Your task to perform on an android device: open chrome and create a bookmark for the current page Image 0: 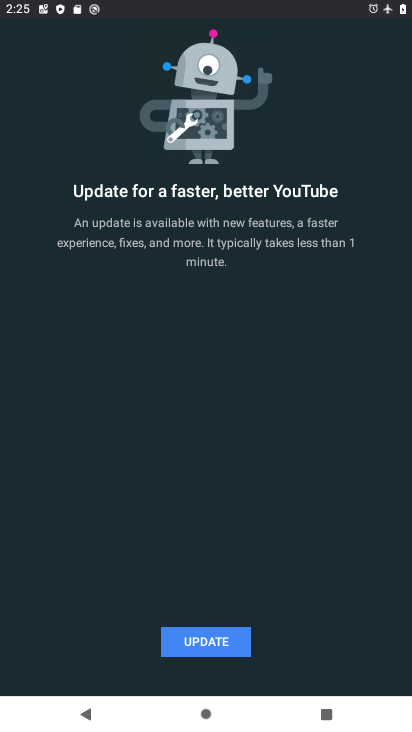
Step 0: press home button
Your task to perform on an android device: open chrome and create a bookmark for the current page Image 1: 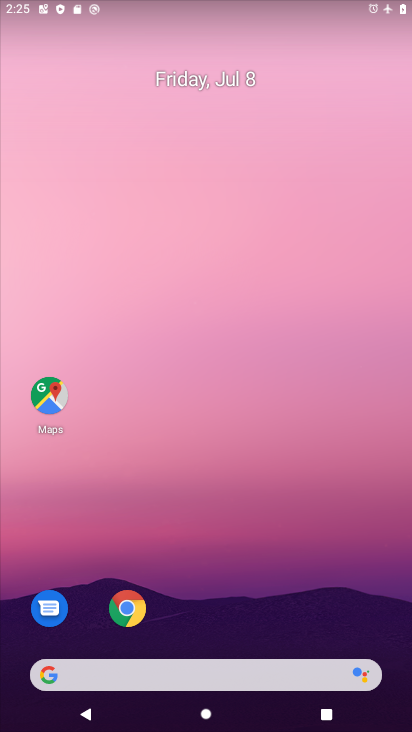
Step 1: click (123, 611)
Your task to perform on an android device: open chrome and create a bookmark for the current page Image 2: 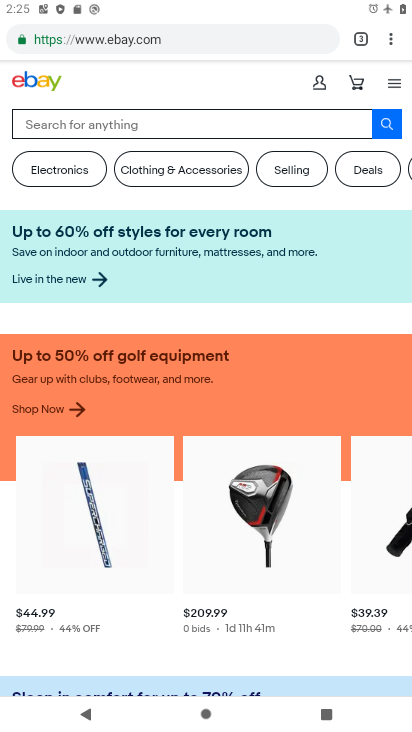
Step 2: click (390, 45)
Your task to perform on an android device: open chrome and create a bookmark for the current page Image 3: 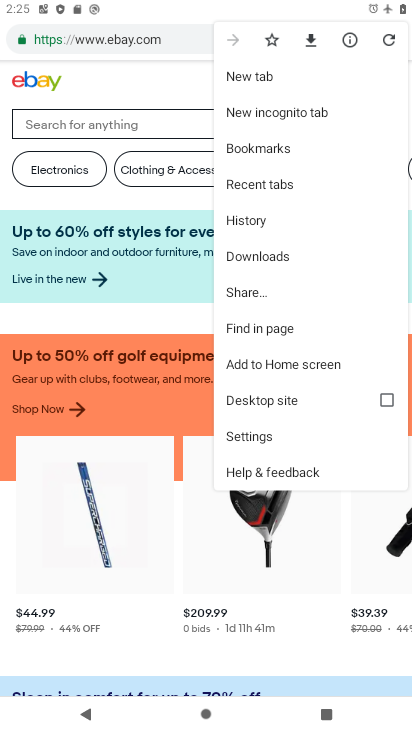
Step 3: click (272, 44)
Your task to perform on an android device: open chrome and create a bookmark for the current page Image 4: 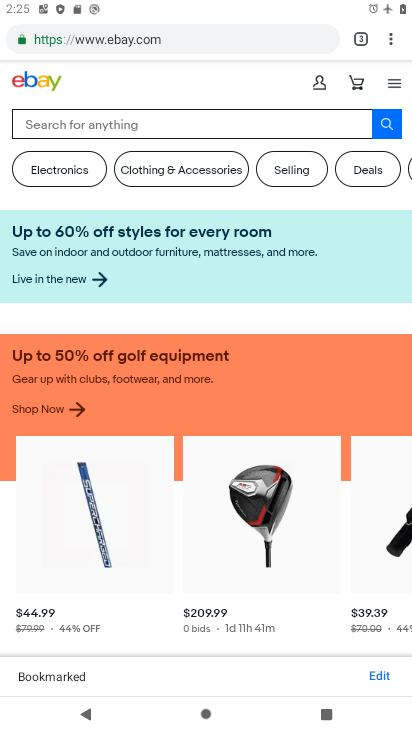
Step 4: task complete